Your task to perform on an android device: Search for the best selling vase on Crate & Barrel Image 0: 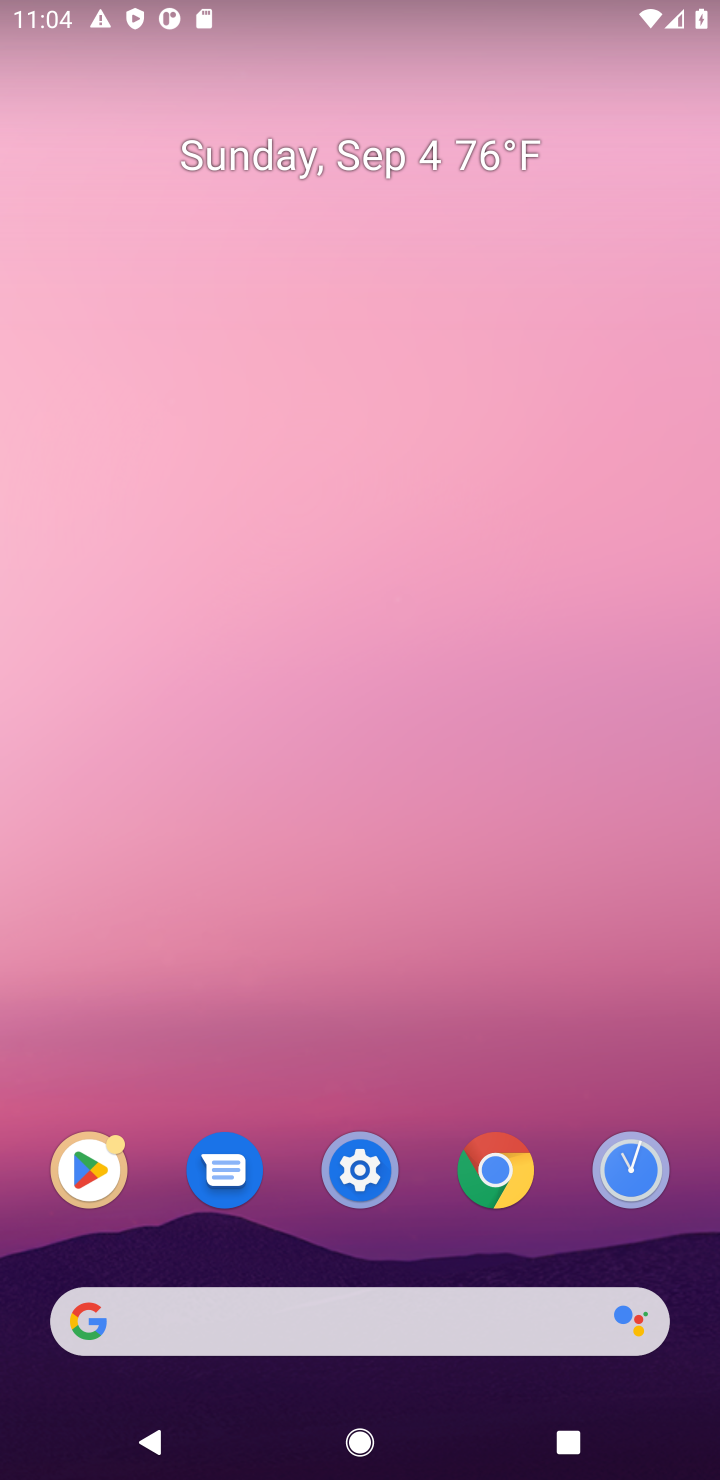
Step 0: click (302, 1307)
Your task to perform on an android device: Search for the best selling vase on Crate & Barrel Image 1: 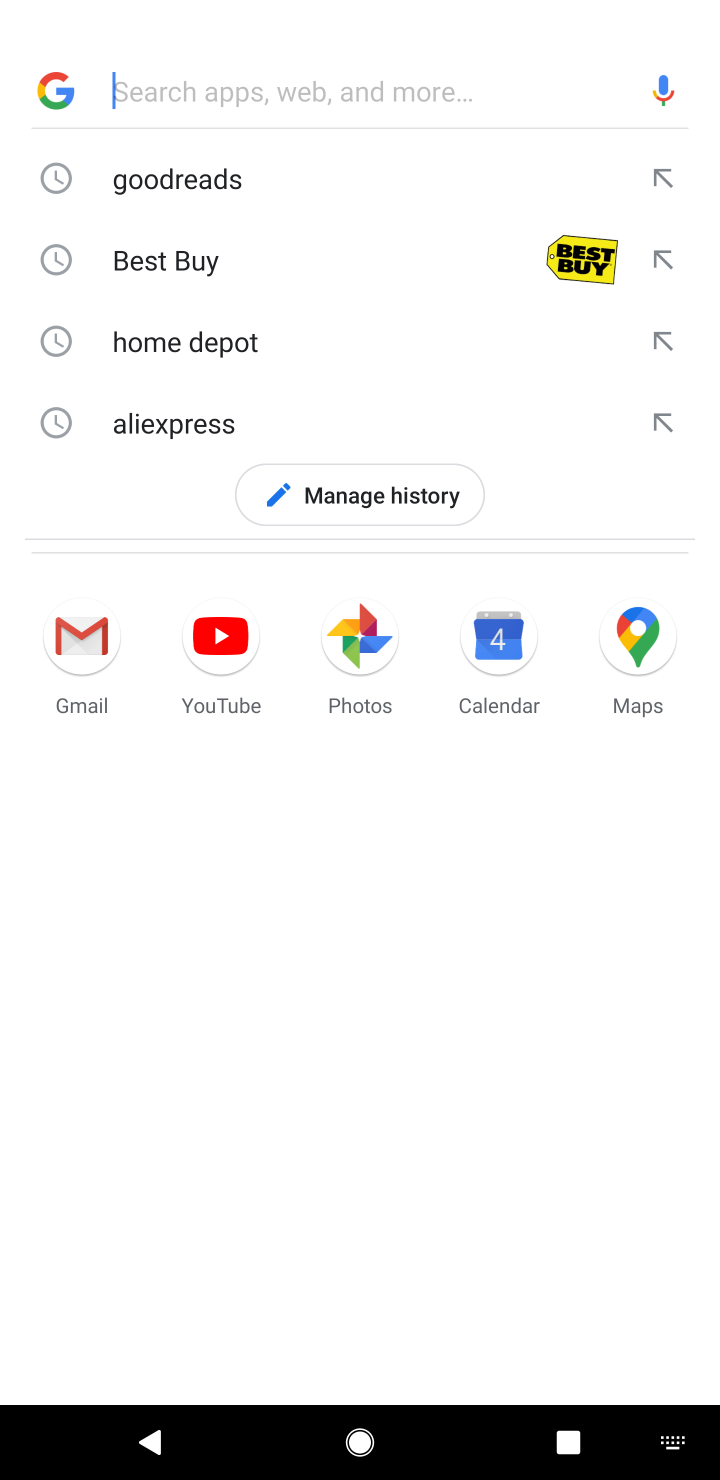
Step 1: type "Crate & Barrel"
Your task to perform on an android device: Search for the best selling vase on Crate & Barrel Image 2: 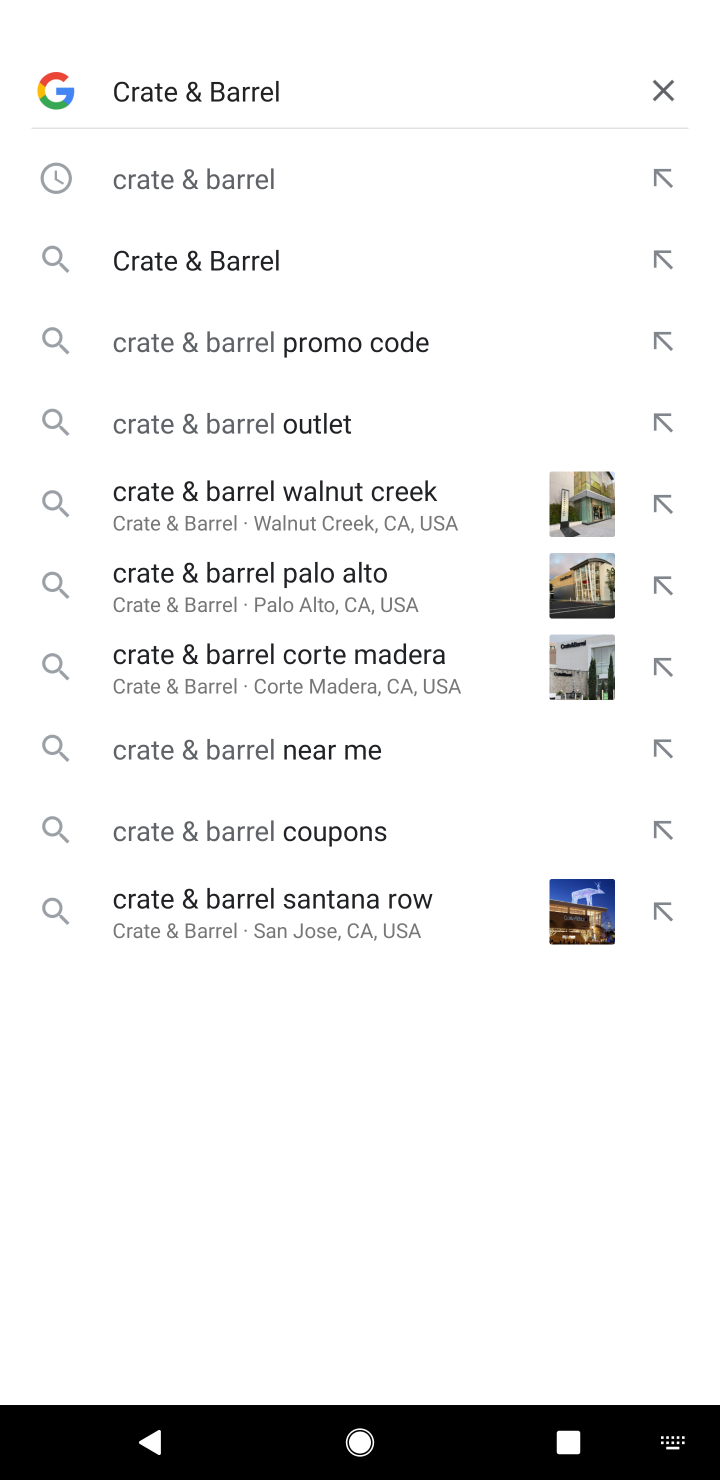
Step 2: click (288, 179)
Your task to perform on an android device: Search for the best selling vase on Crate & Barrel Image 3: 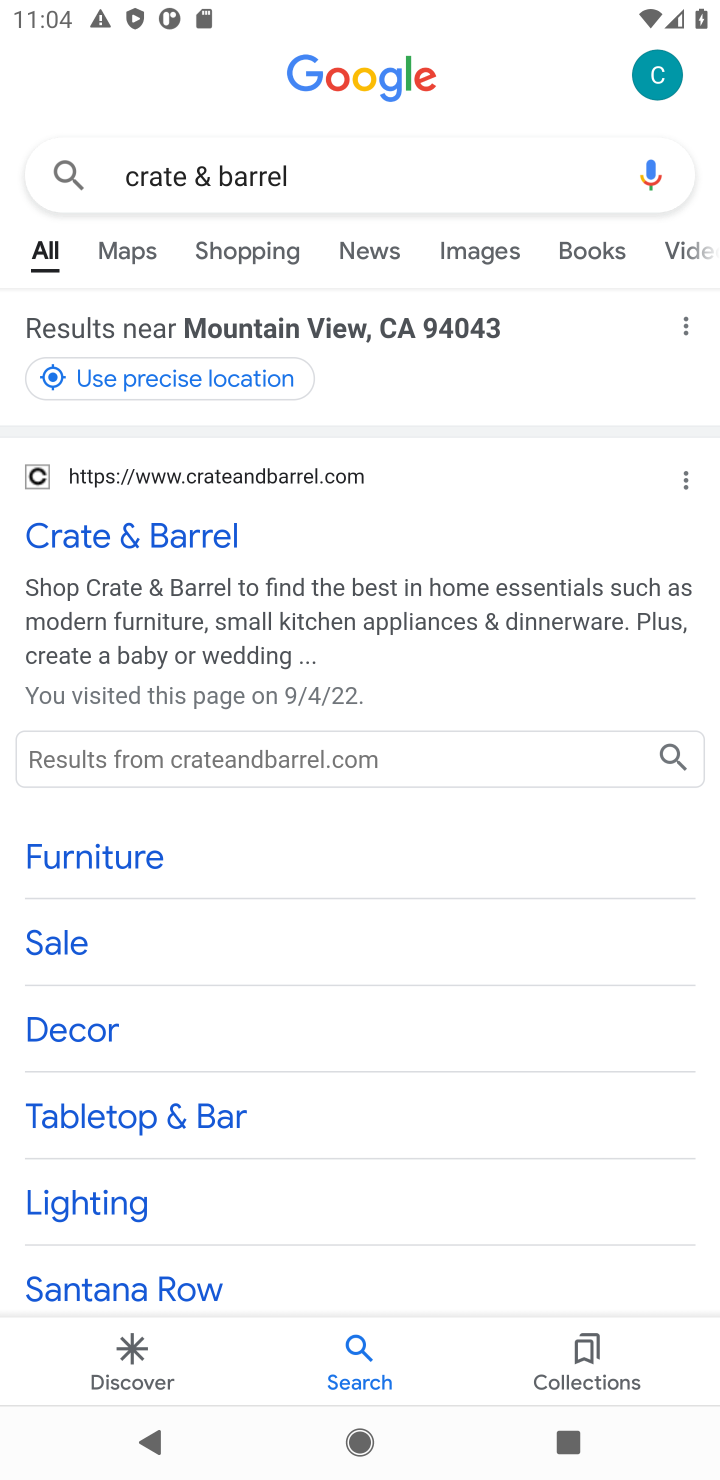
Step 3: click (187, 553)
Your task to perform on an android device: Search for the best selling vase on Crate & Barrel Image 4: 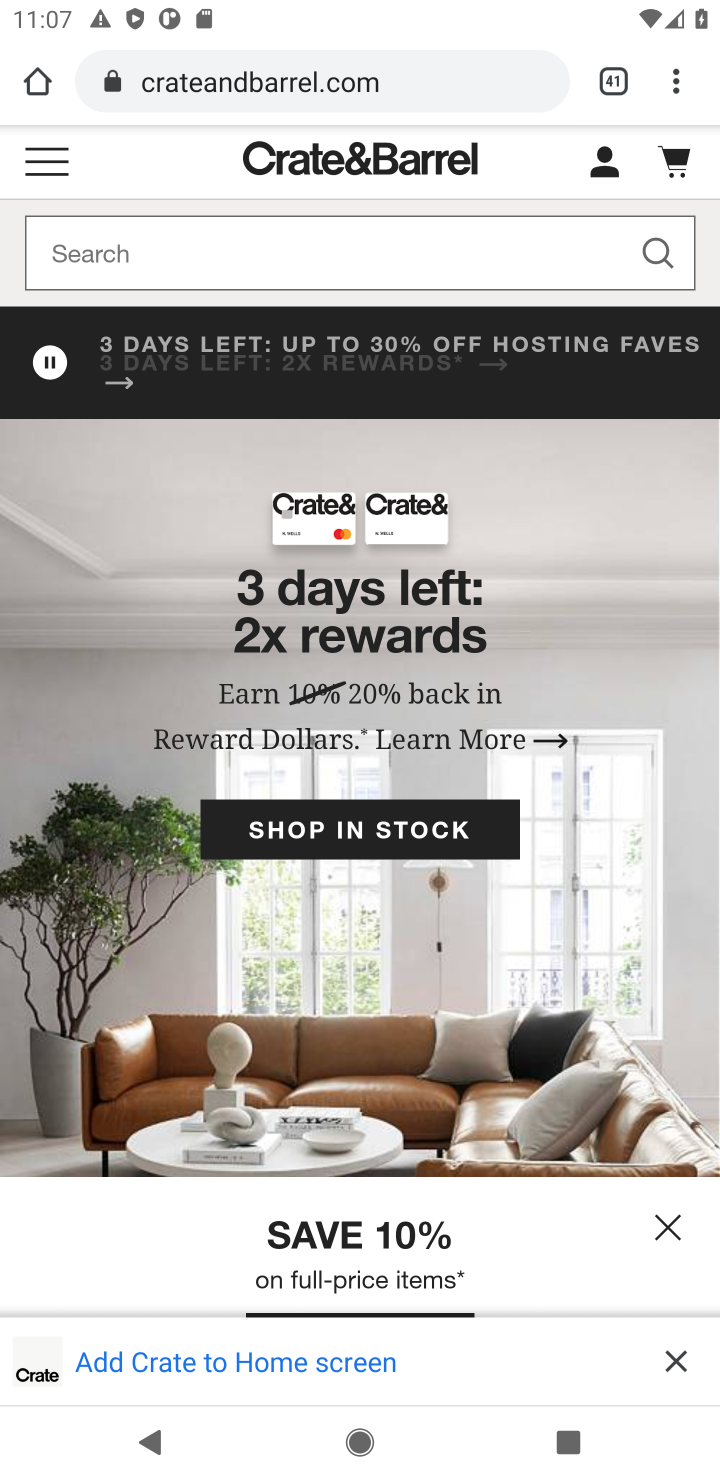
Step 4: click (195, 230)
Your task to perform on an android device: Search for the best selling vase on Crate & Barrel Image 5: 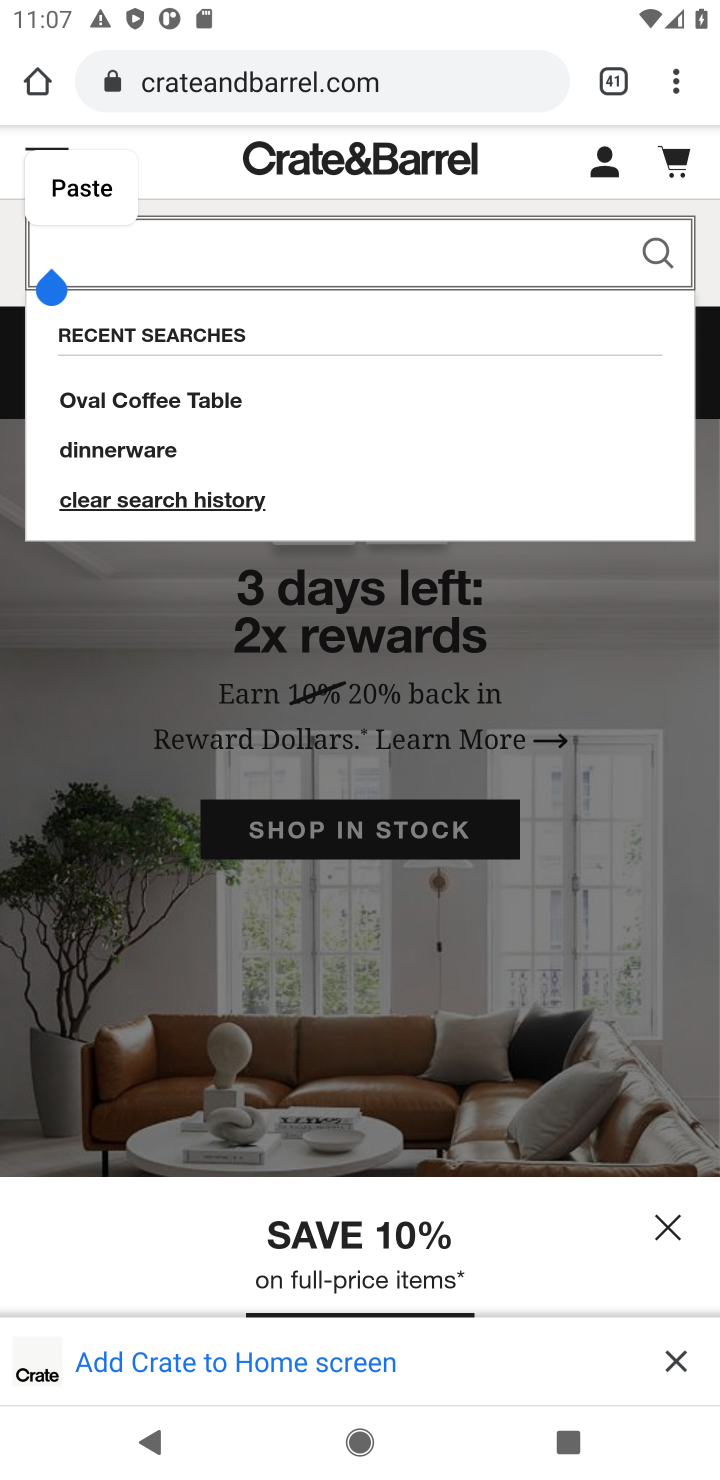
Step 5: type "selling vase"
Your task to perform on an android device: Search for the best selling vase on Crate & Barrel Image 6: 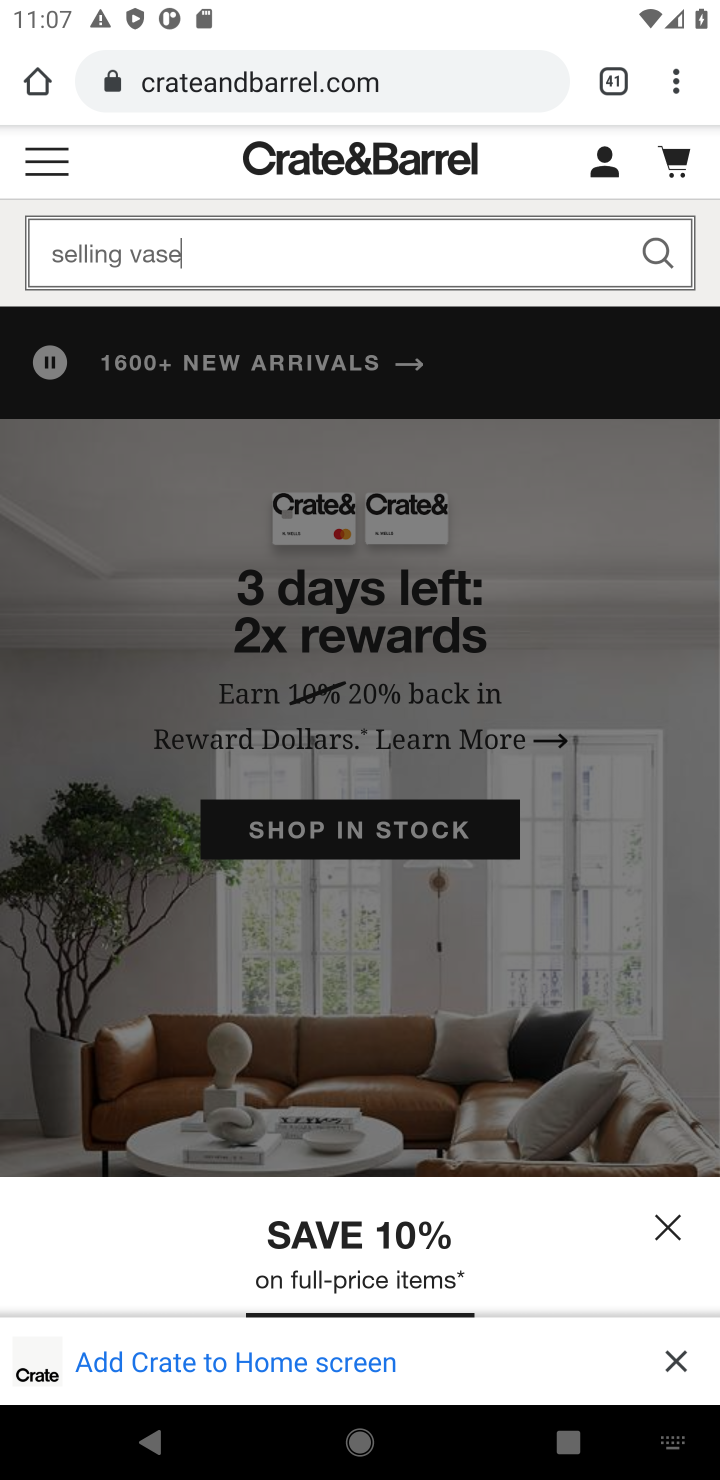
Step 6: type ""
Your task to perform on an android device: Search for the best selling vase on Crate & Barrel Image 7: 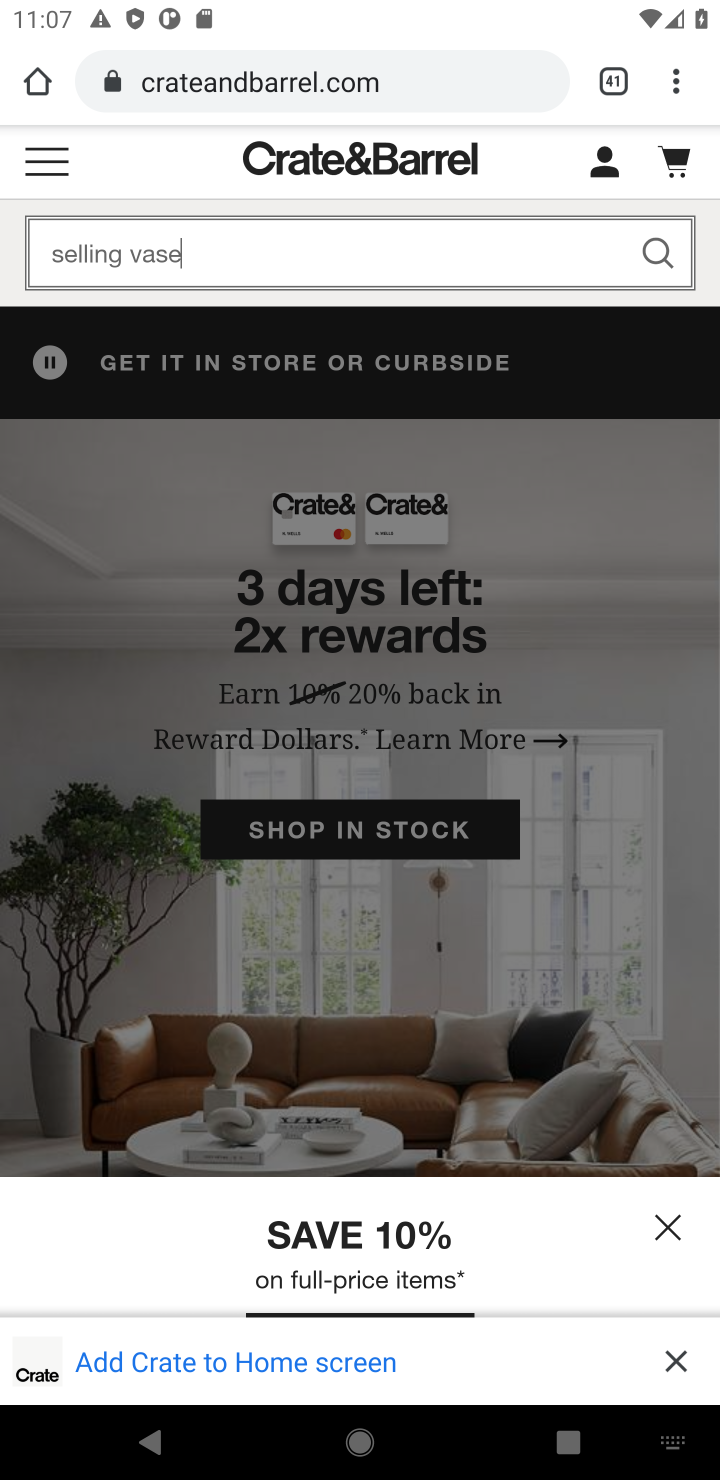
Step 7: click (642, 255)
Your task to perform on an android device: Search for the best selling vase on Crate & Barrel Image 8: 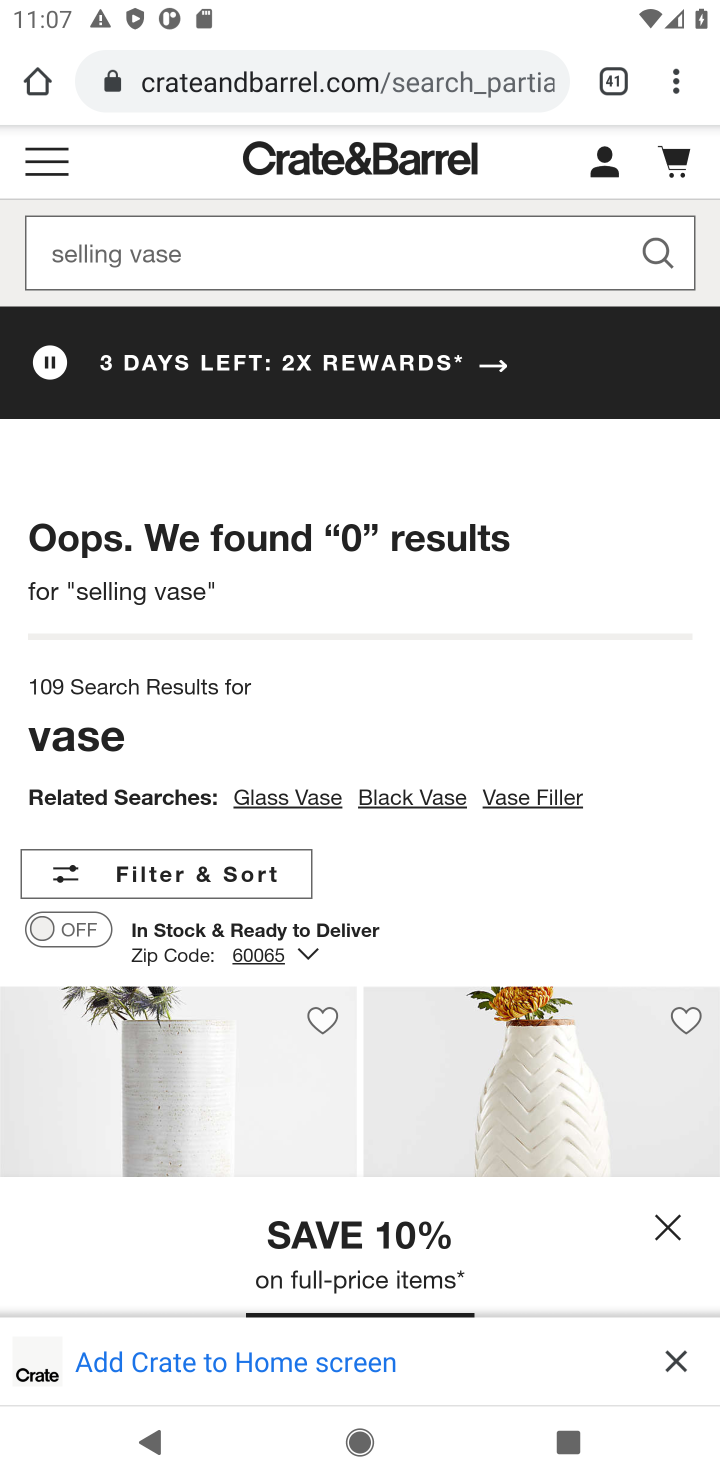
Step 8: task complete